Your task to perform on an android device: set the stopwatch Image 0: 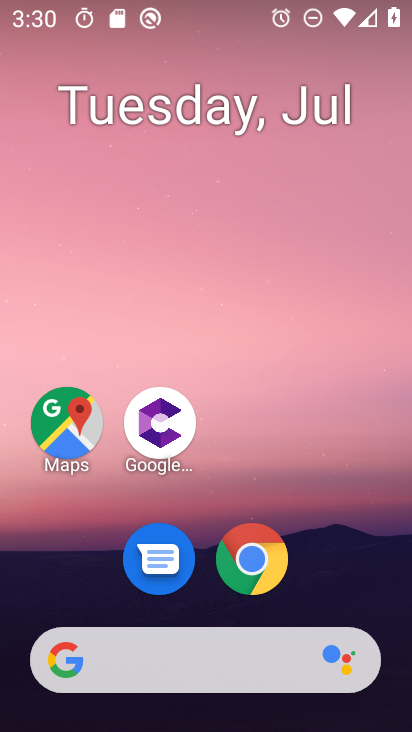
Step 0: press home button
Your task to perform on an android device: set the stopwatch Image 1: 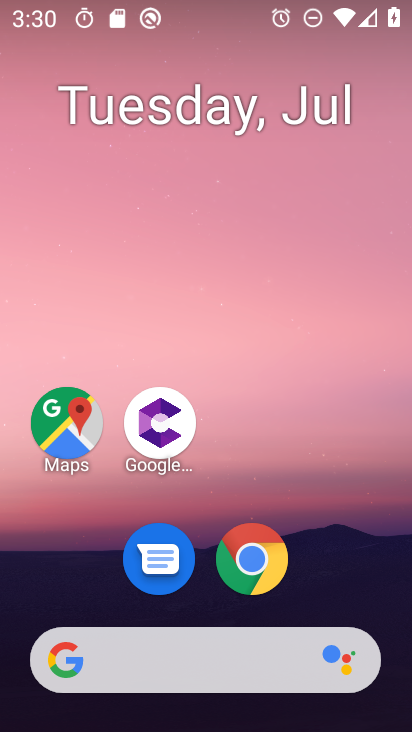
Step 1: drag from (350, 576) to (369, 115)
Your task to perform on an android device: set the stopwatch Image 2: 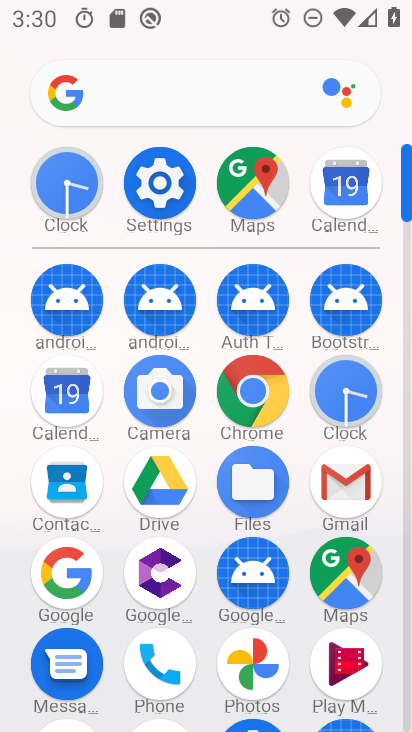
Step 2: click (343, 406)
Your task to perform on an android device: set the stopwatch Image 3: 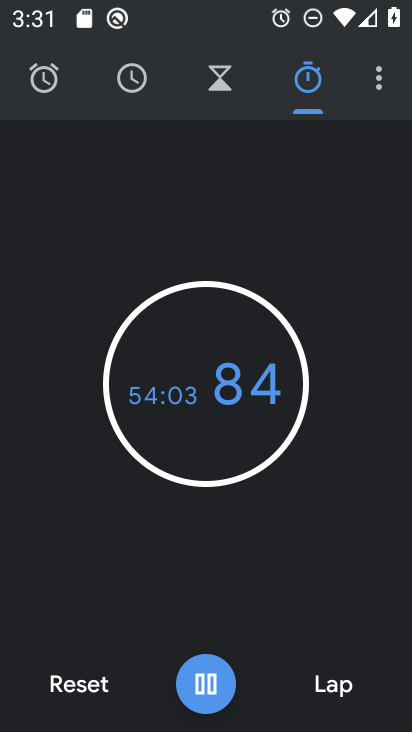
Step 3: task complete